Your task to perform on an android device: check the backup settings in the google photos Image 0: 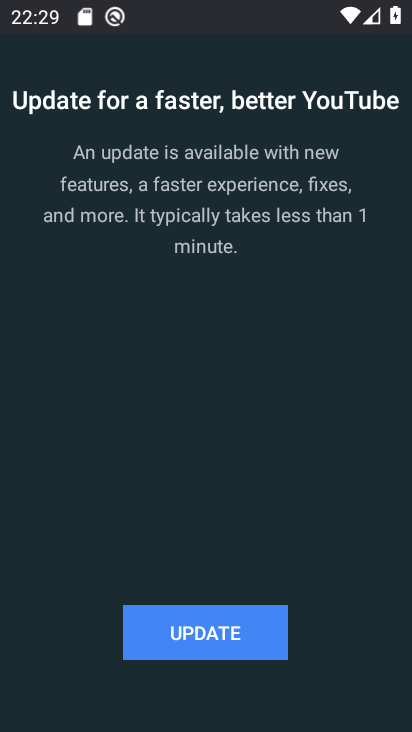
Step 0: press home button
Your task to perform on an android device: check the backup settings in the google photos Image 1: 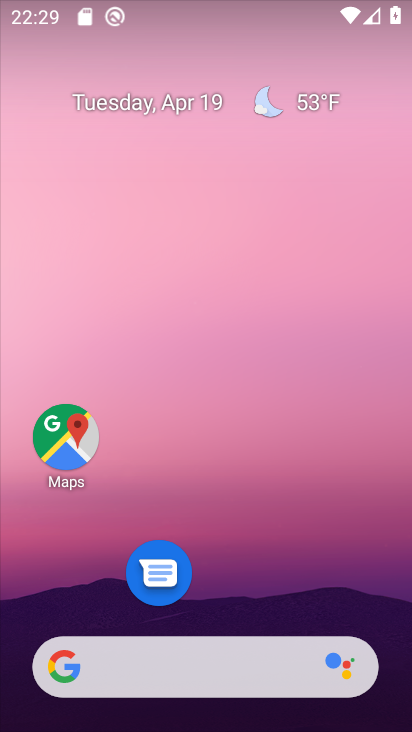
Step 1: drag from (206, 615) to (189, 91)
Your task to perform on an android device: check the backup settings in the google photos Image 2: 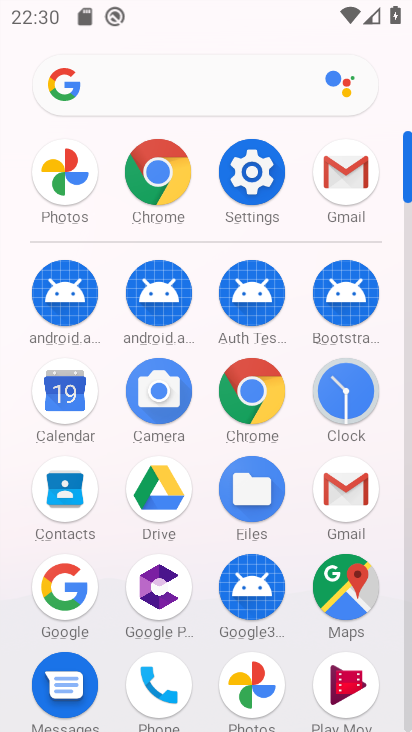
Step 2: click (253, 675)
Your task to perform on an android device: check the backup settings in the google photos Image 3: 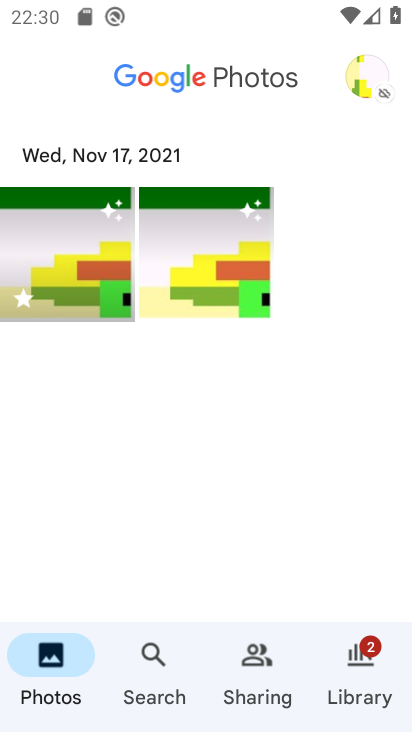
Step 3: click (358, 70)
Your task to perform on an android device: check the backup settings in the google photos Image 4: 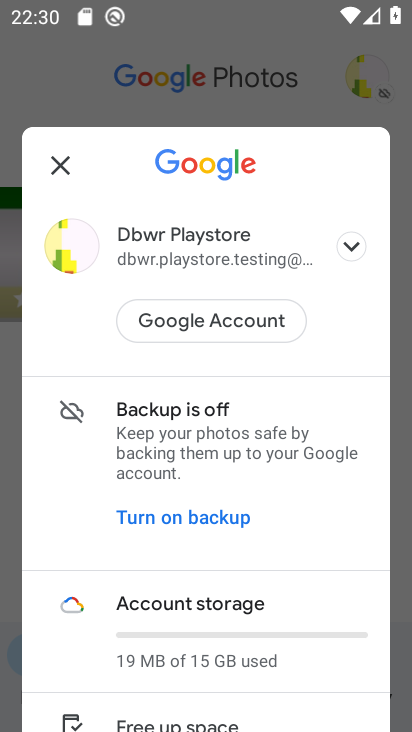
Step 4: click (137, 436)
Your task to perform on an android device: check the backup settings in the google photos Image 5: 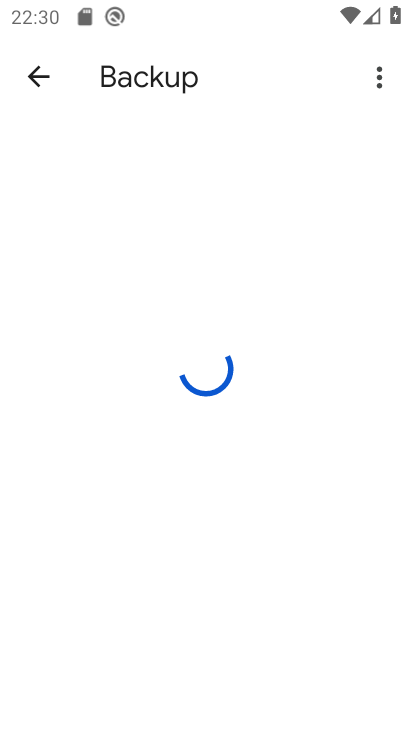
Step 5: click (378, 81)
Your task to perform on an android device: check the backup settings in the google photos Image 6: 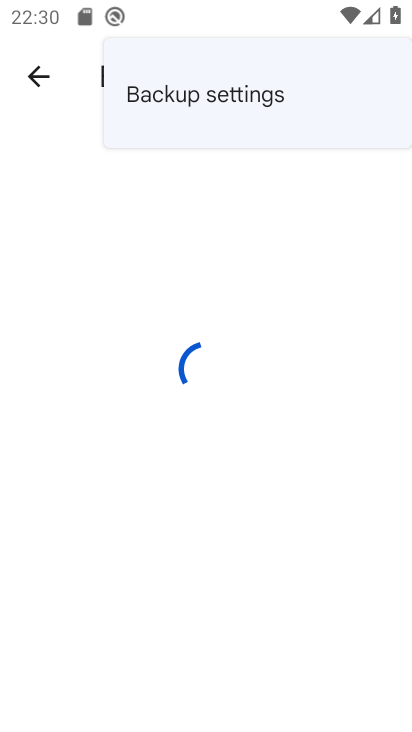
Step 6: click (204, 90)
Your task to perform on an android device: check the backup settings in the google photos Image 7: 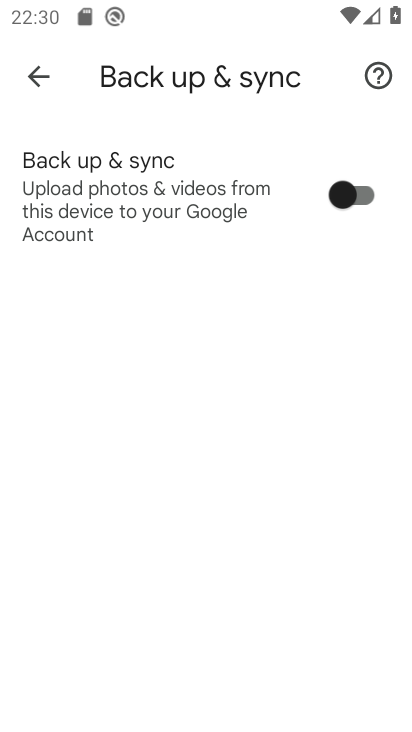
Step 7: click (347, 193)
Your task to perform on an android device: check the backup settings in the google photos Image 8: 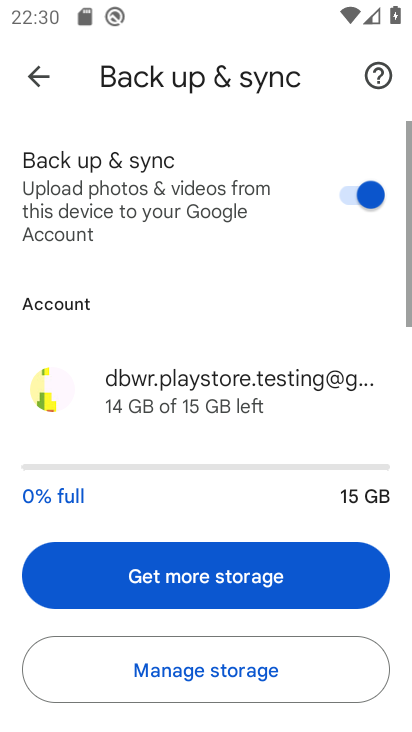
Step 8: task complete